Your task to perform on an android device: open app "Messenger Lite" (install if not already installed), go to login, and select forgot password Image 0: 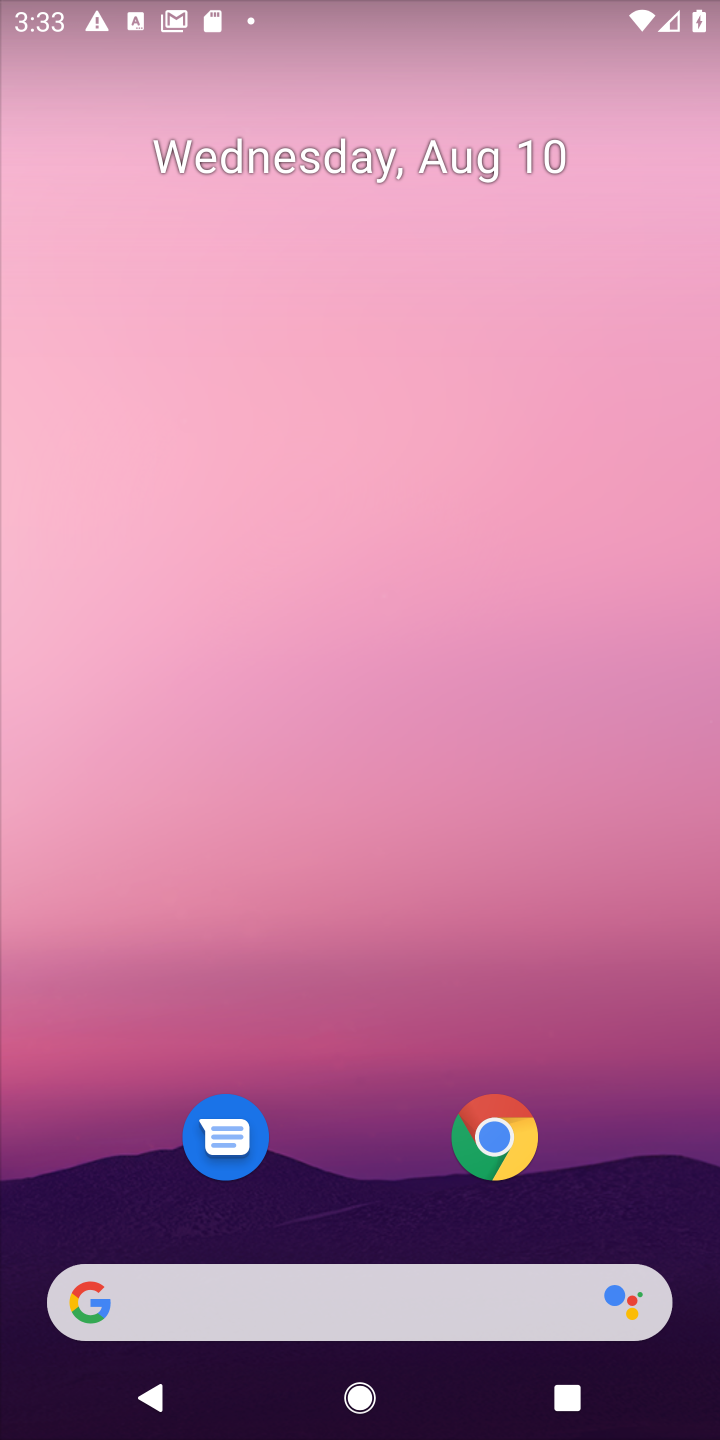
Step 0: drag from (349, 1209) to (266, 4)
Your task to perform on an android device: open app "Messenger Lite" (install if not already installed), go to login, and select forgot password Image 1: 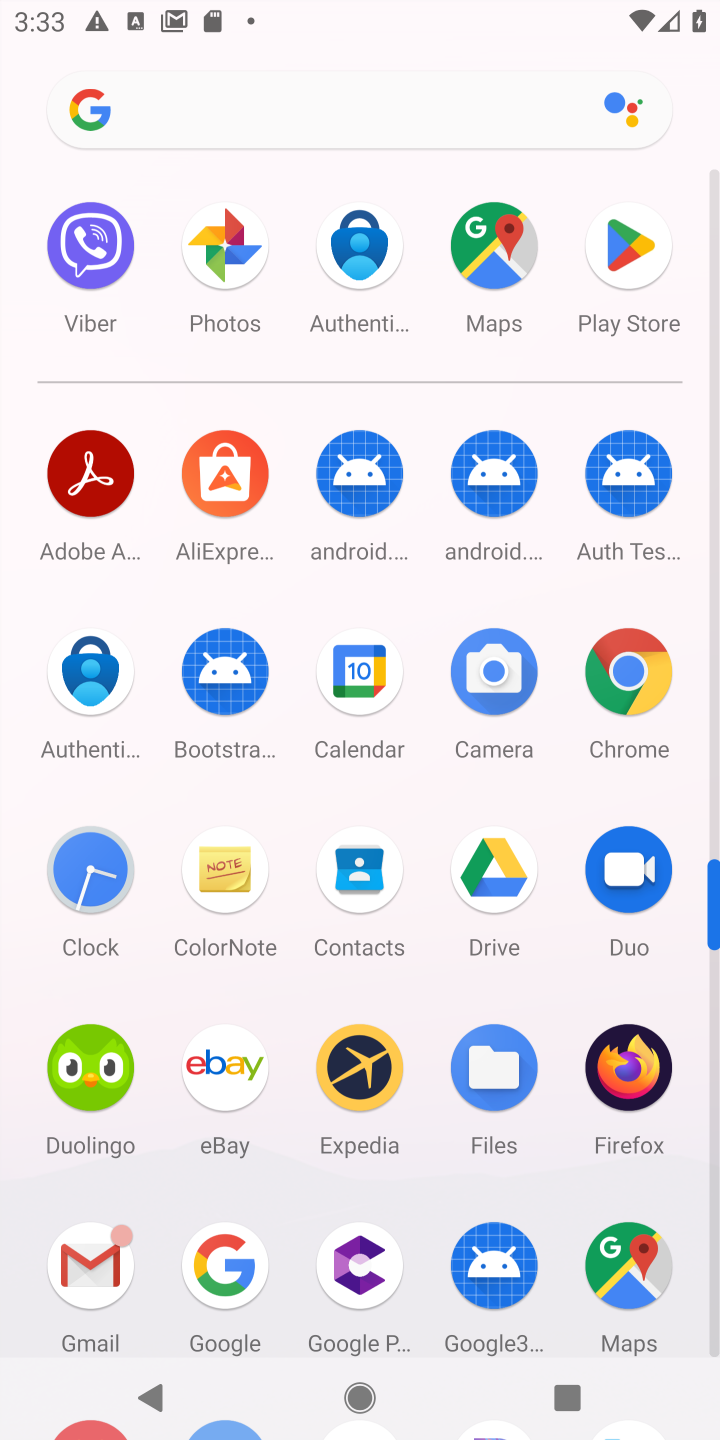
Step 1: click (622, 305)
Your task to perform on an android device: open app "Messenger Lite" (install if not already installed), go to login, and select forgot password Image 2: 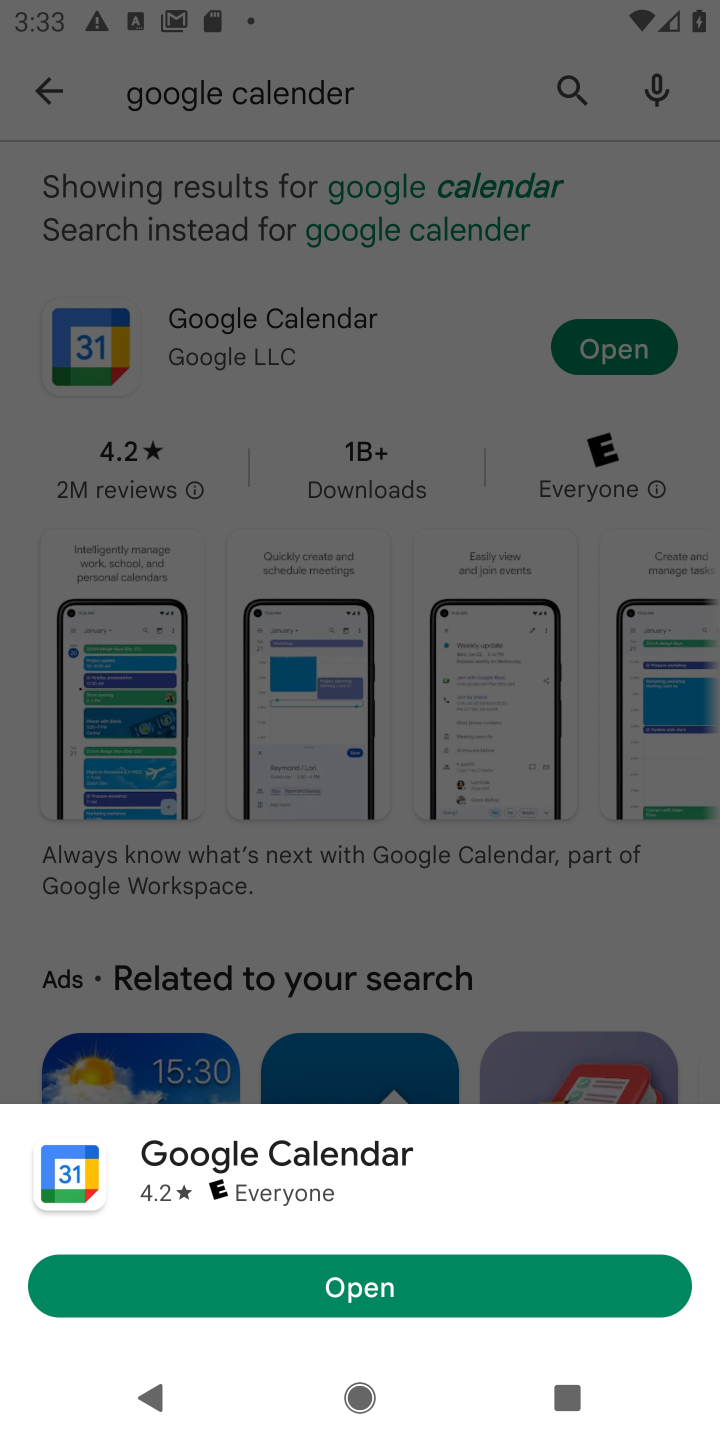
Step 2: click (330, 65)
Your task to perform on an android device: open app "Messenger Lite" (install if not already installed), go to login, and select forgot password Image 3: 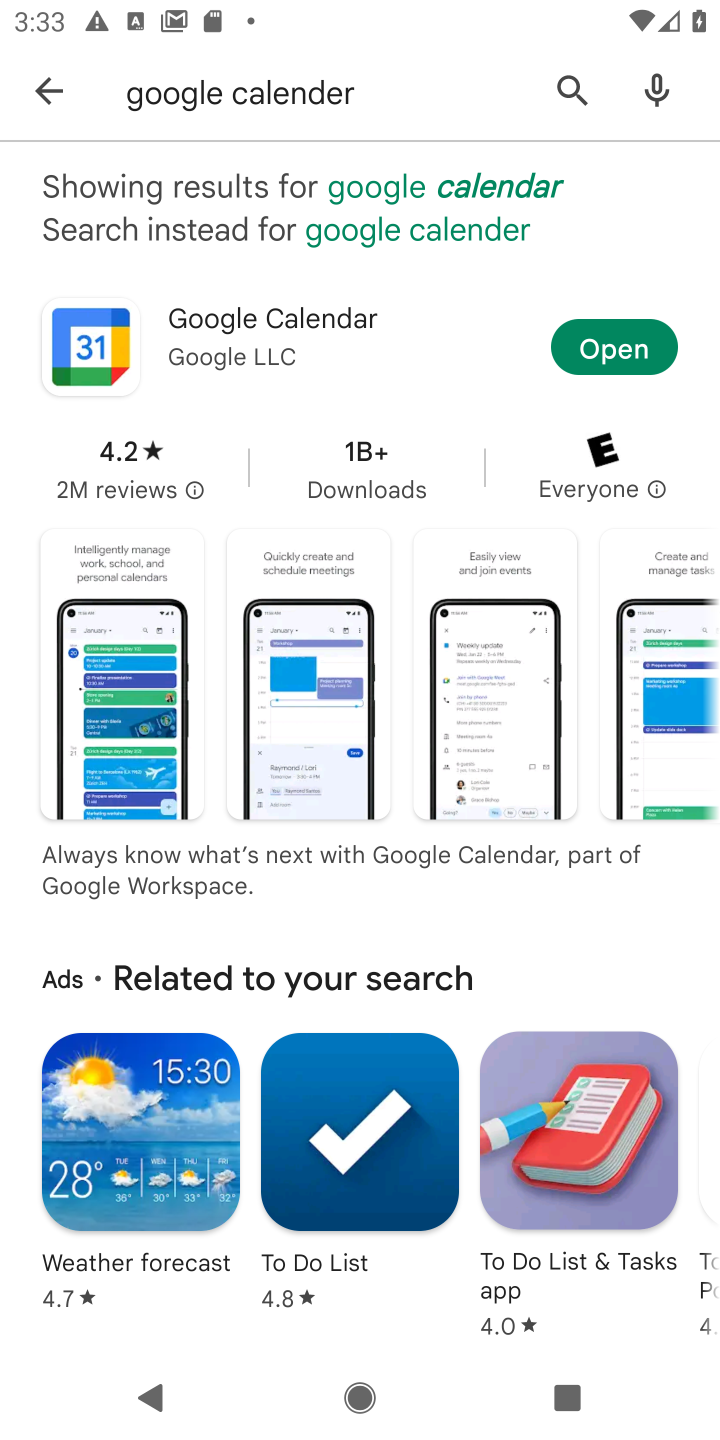
Step 3: click (287, 103)
Your task to perform on an android device: open app "Messenger Lite" (install if not already installed), go to login, and select forgot password Image 4: 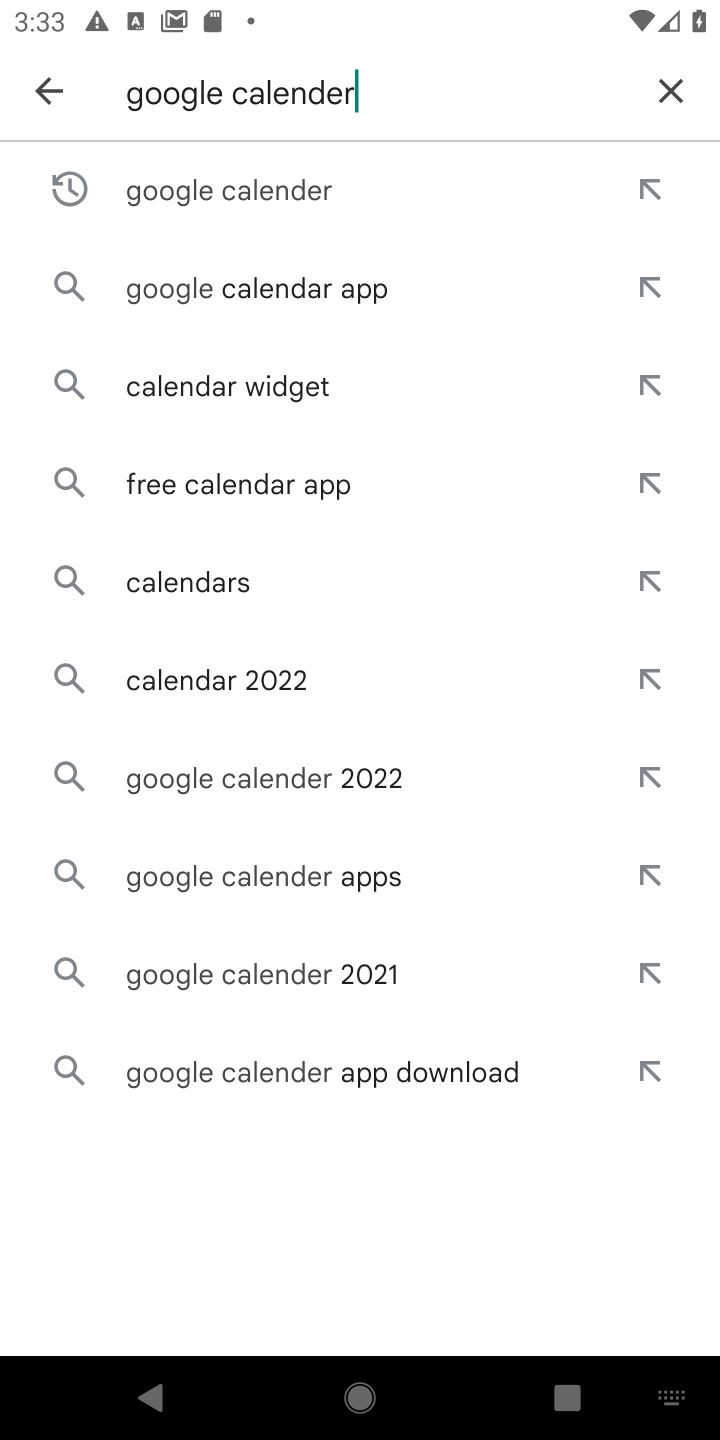
Step 4: click (676, 95)
Your task to perform on an android device: open app "Messenger Lite" (install if not already installed), go to login, and select forgot password Image 5: 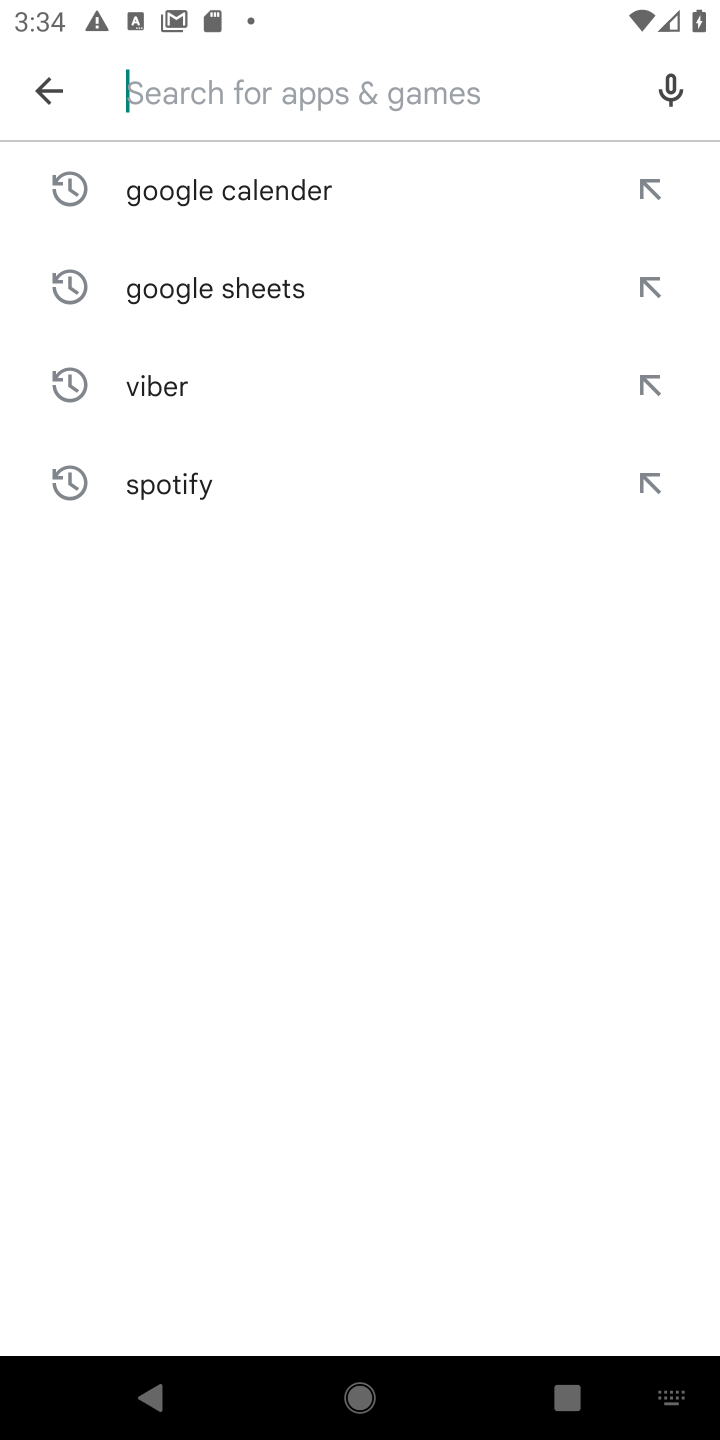
Step 5: type "messenger lite"
Your task to perform on an android device: open app "Messenger Lite" (install if not already installed), go to login, and select forgot password Image 6: 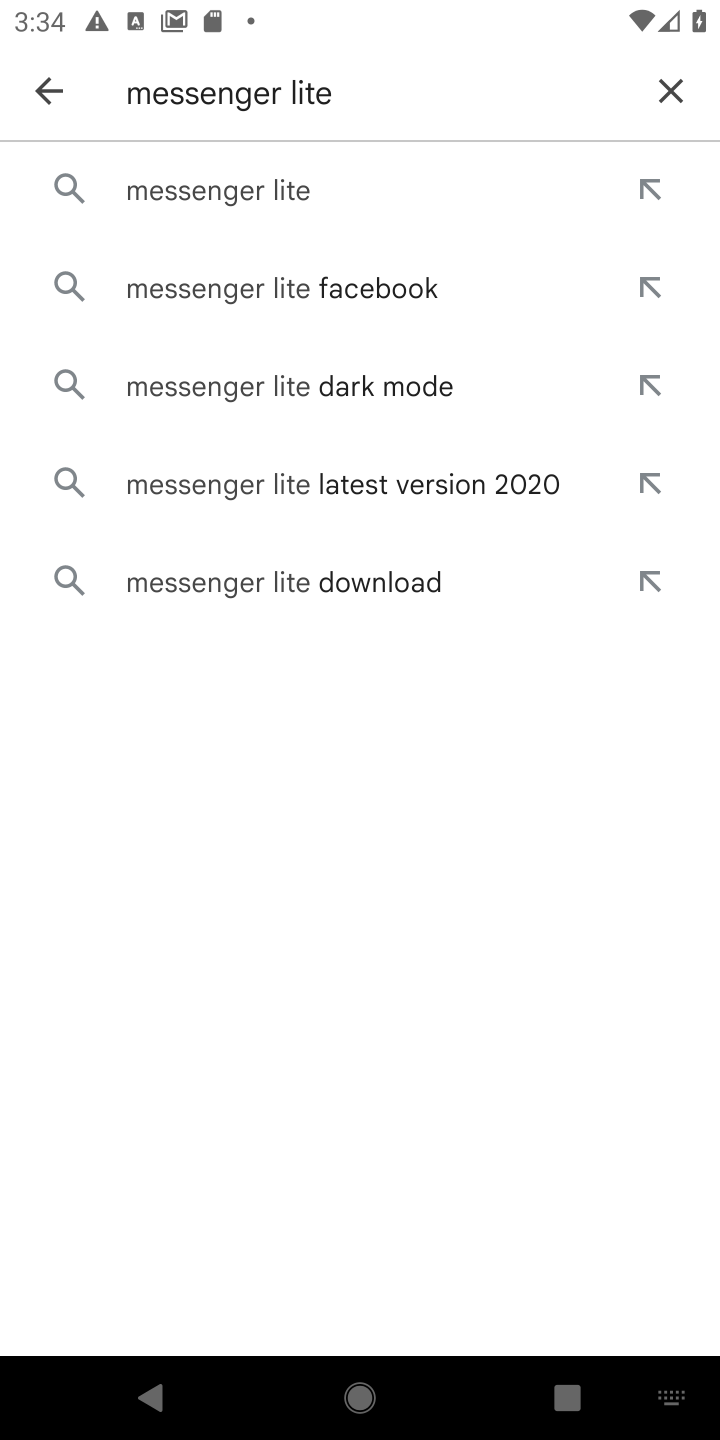
Step 6: click (272, 150)
Your task to perform on an android device: open app "Messenger Lite" (install if not already installed), go to login, and select forgot password Image 7: 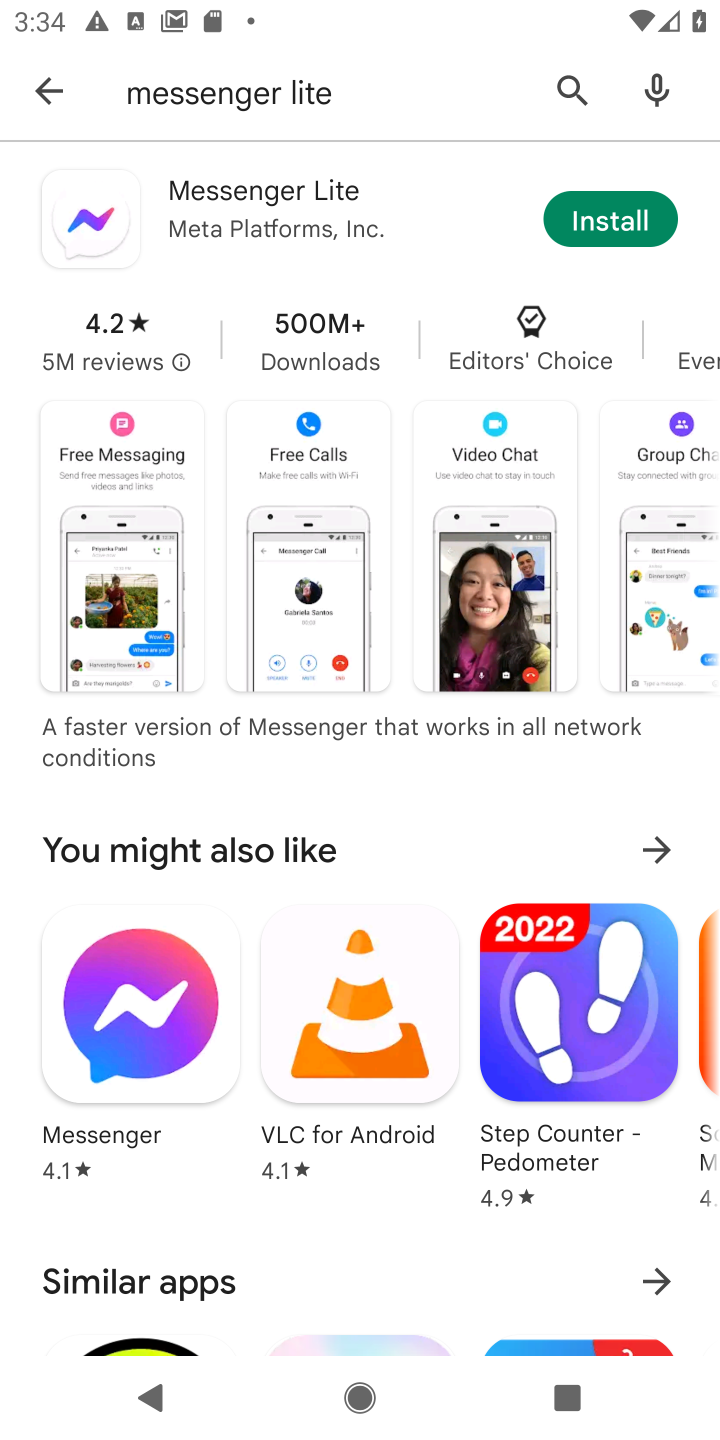
Step 7: click (616, 233)
Your task to perform on an android device: open app "Messenger Lite" (install if not already installed), go to login, and select forgot password Image 8: 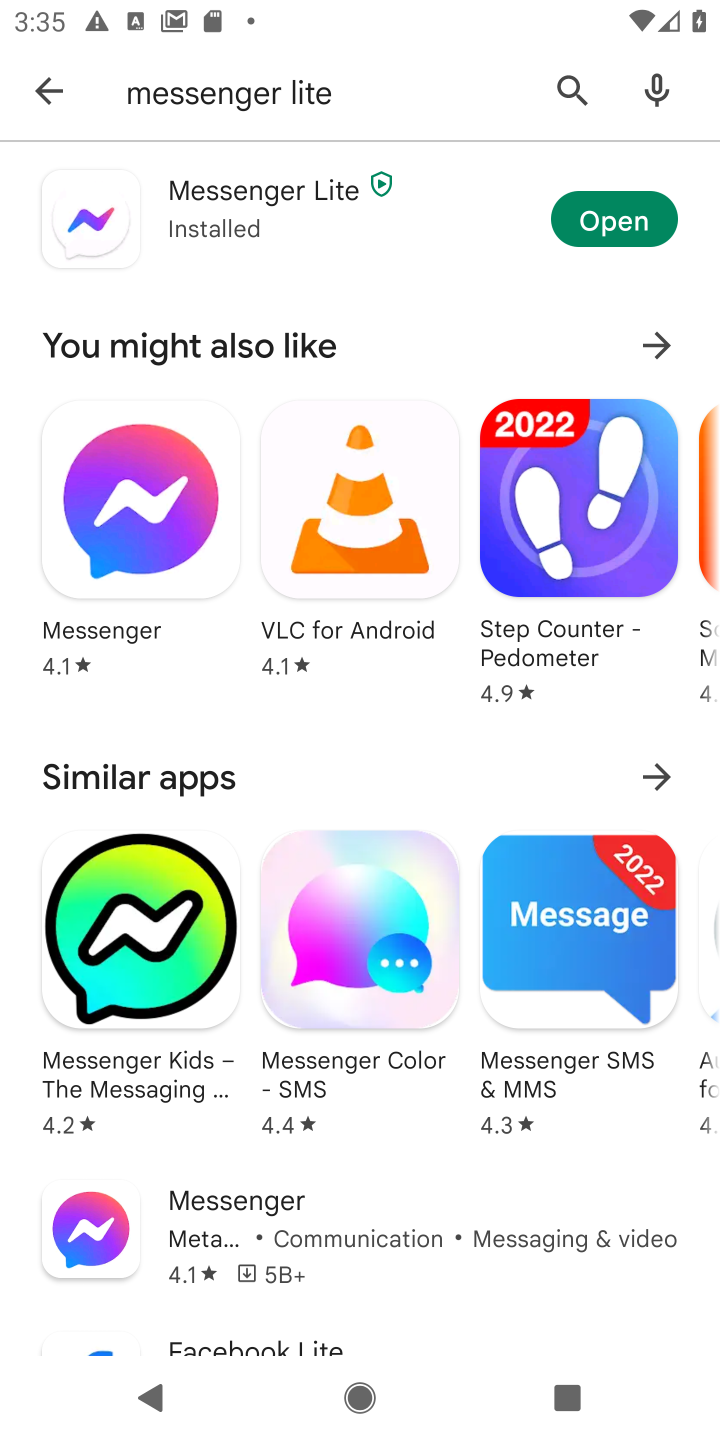
Step 8: click (598, 212)
Your task to perform on an android device: open app "Messenger Lite" (install if not already installed), go to login, and select forgot password Image 9: 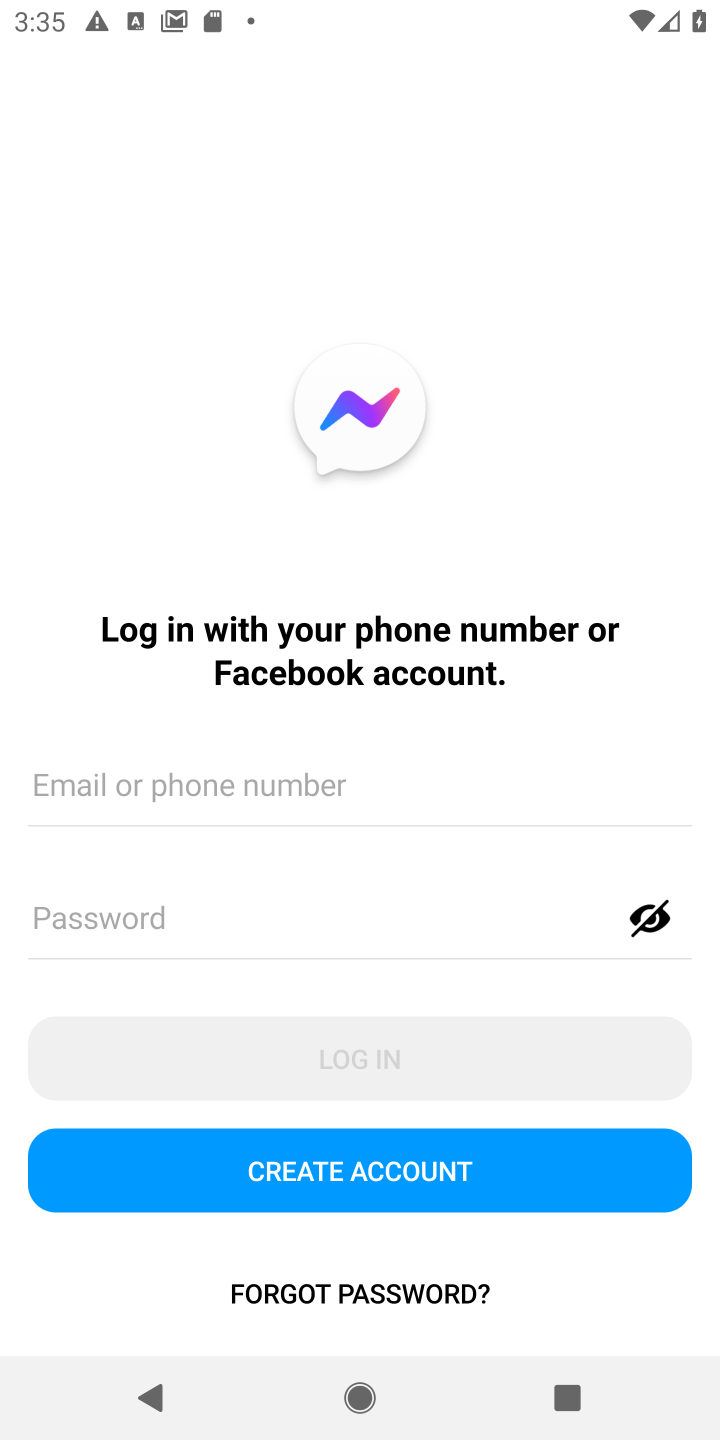
Step 9: click (373, 1278)
Your task to perform on an android device: open app "Messenger Lite" (install if not already installed), go to login, and select forgot password Image 10: 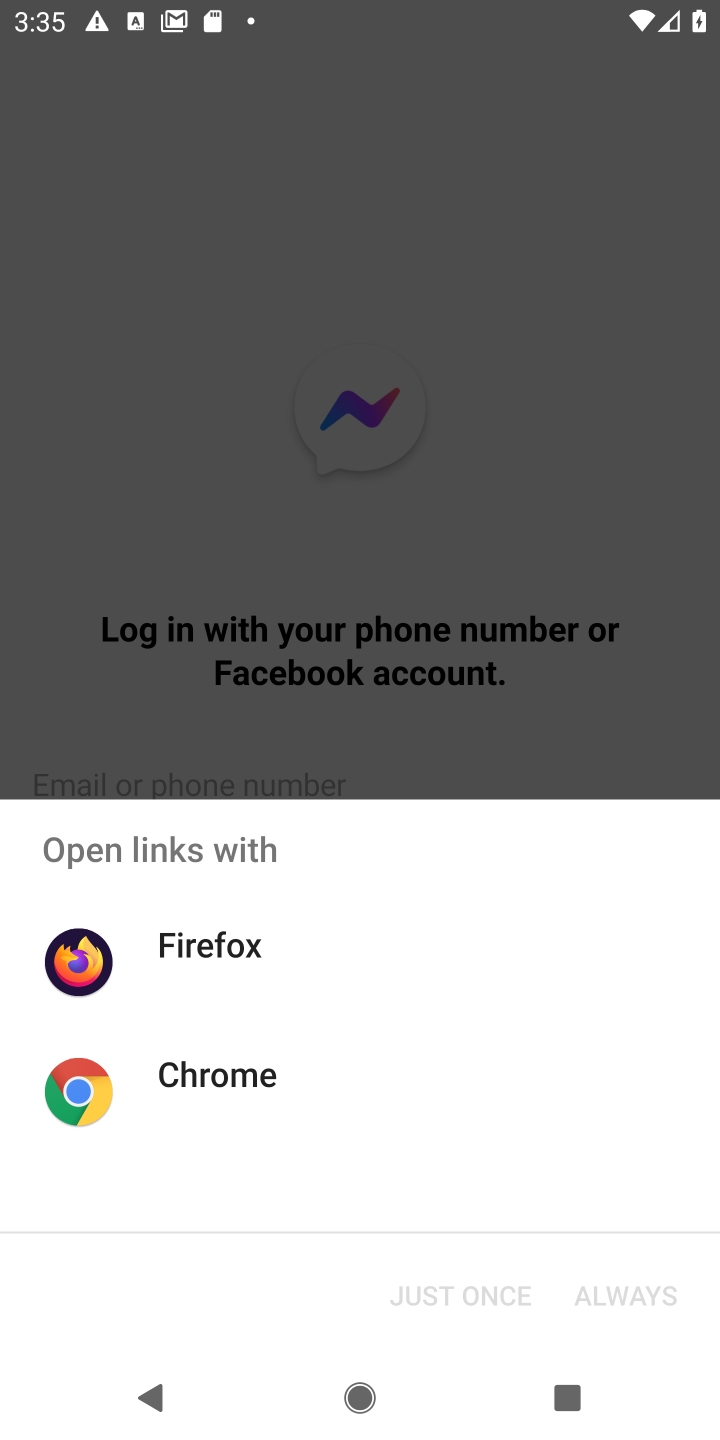
Step 10: task complete